Your task to perform on an android device: all mails in gmail Image 0: 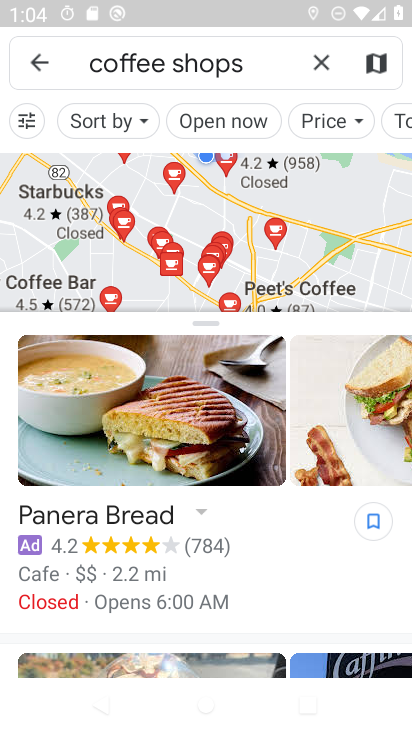
Step 0: press home button
Your task to perform on an android device: all mails in gmail Image 1: 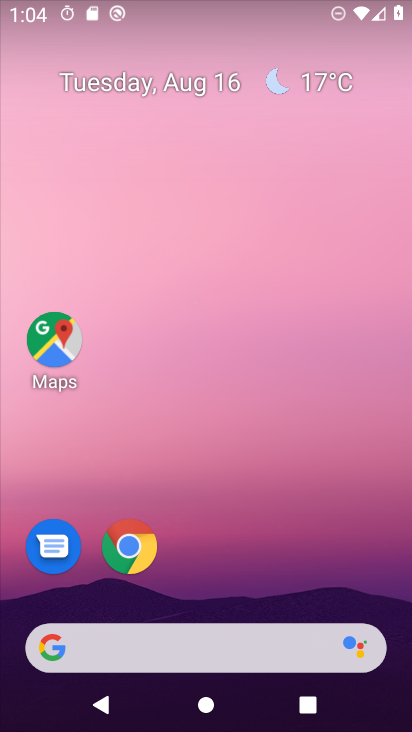
Step 1: drag from (248, 538) to (246, 95)
Your task to perform on an android device: all mails in gmail Image 2: 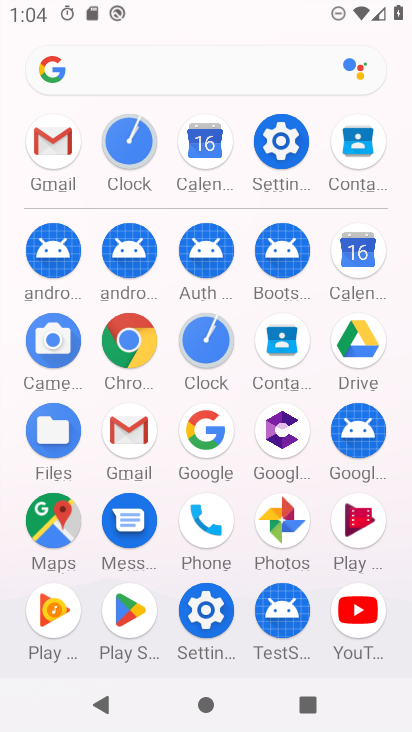
Step 2: click (127, 424)
Your task to perform on an android device: all mails in gmail Image 3: 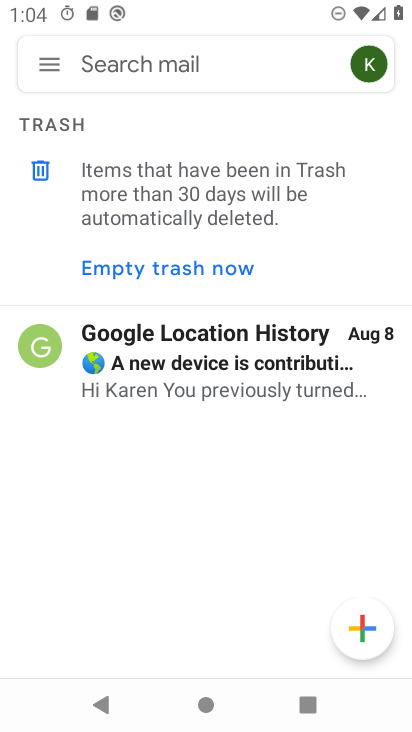
Step 3: click (54, 65)
Your task to perform on an android device: all mails in gmail Image 4: 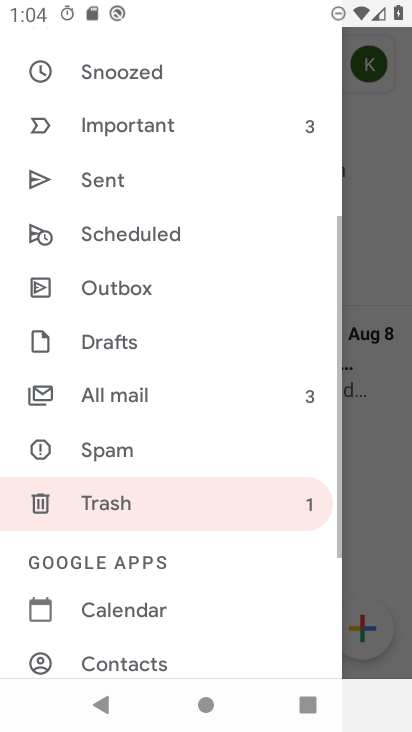
Step 4: click (107, 394)
Your task to perform on an android device: all mails in gmail Image 5: 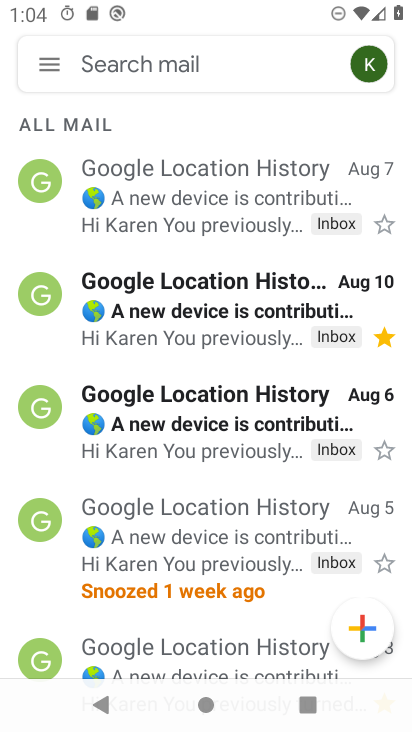
Step 5: task complete